Your task to perform on an android device: Go to wifi settings Image 0: 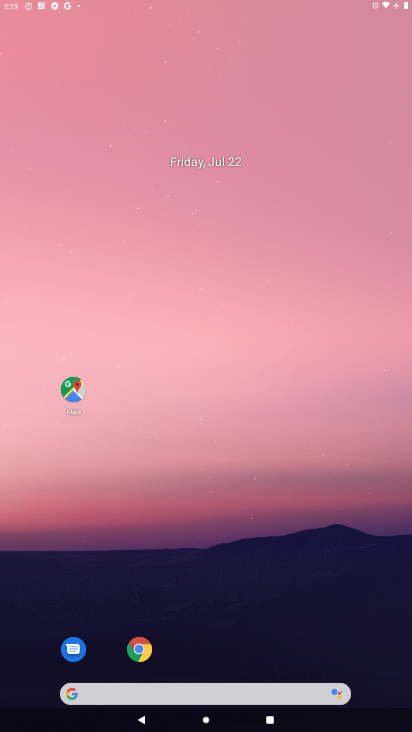
Step 0: drag from (312, 589) to (315, 62)
Your task to perform on an android device: Go to wifi settings Image 1: 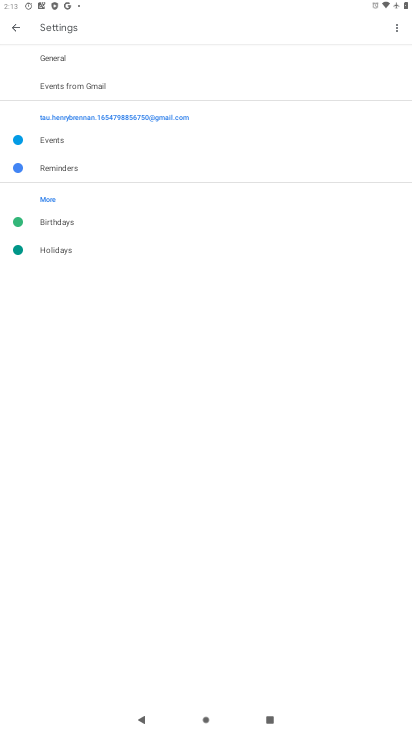
Step 1: press home button
Your task to perform on an android device: Go to wifi settings Image 2: 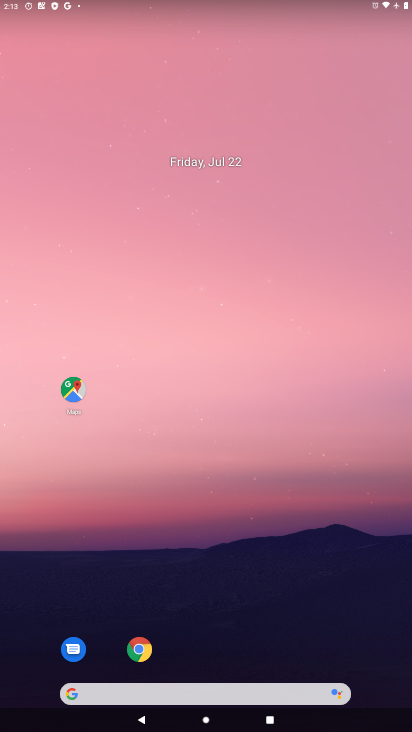
Step 2: drag from (312, 599) to (342, 160)
Your task to perform on an android device: Go to wifi settings Image 3: 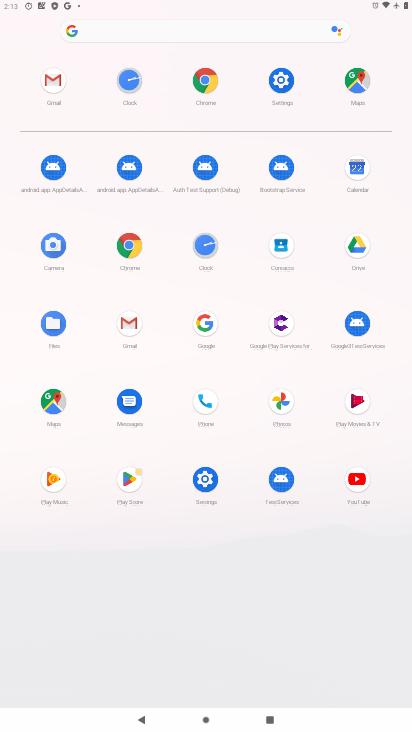
Step 3: click (276, 79)
Your task to perform on an android device: Go to wifi settings Image 4: 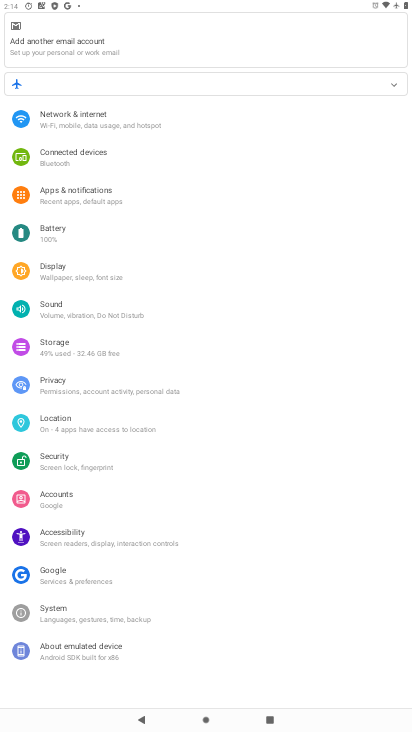
Step 4: click (102, 115)
Your task to perform on an android device: Go to wifi settings Image 5: 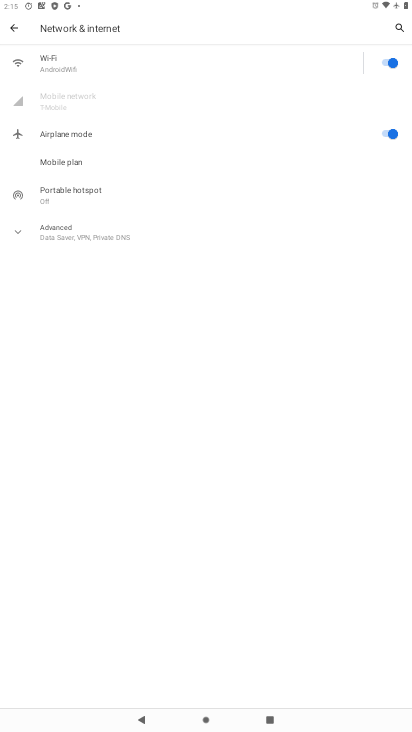
Step 5: click (183, 62)
Your task to perform on an android device: Go to wifi settings Image 6: 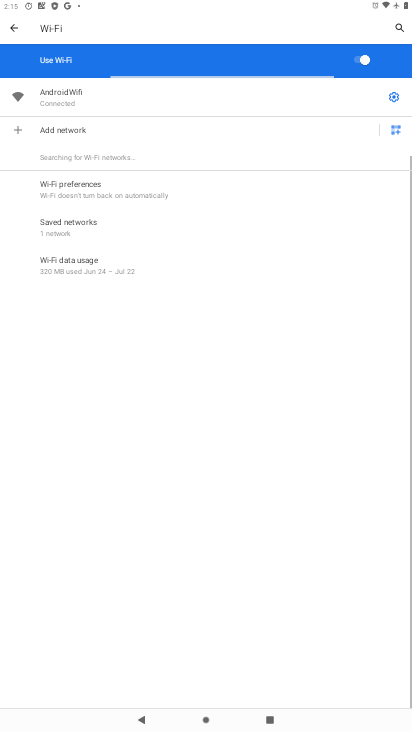
Step 6: click (395, 93)
Your task to perform on an android device: Go to wifi settings Image 7: 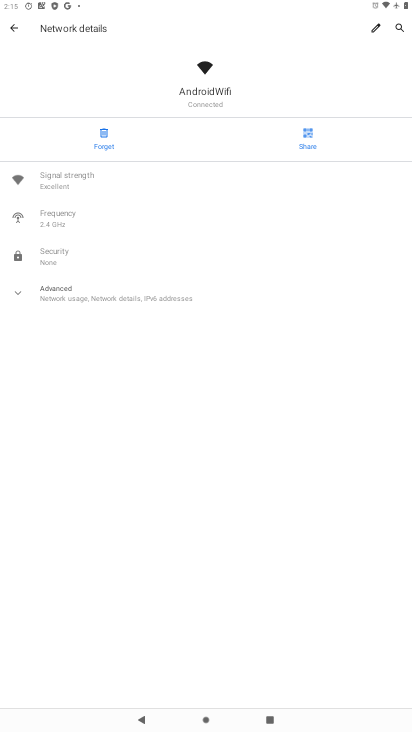
Step 7: task complete